Your task to perform on an android device: set default search engine in the chrome app Image 0: 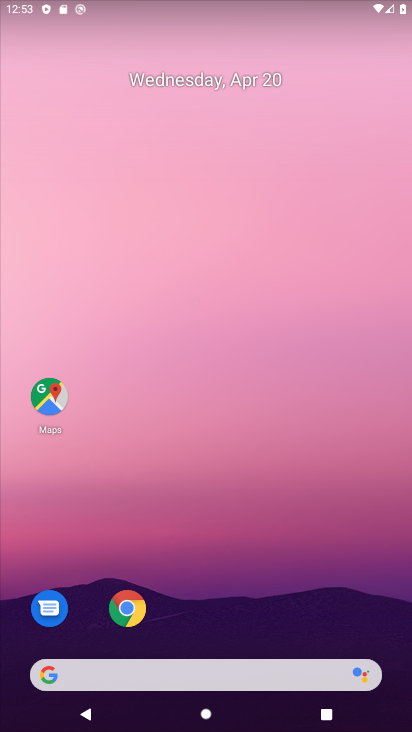
Step 0: click (124, 609)
Your task to perform on an android device: set default search engine in the chrome app Image 1: 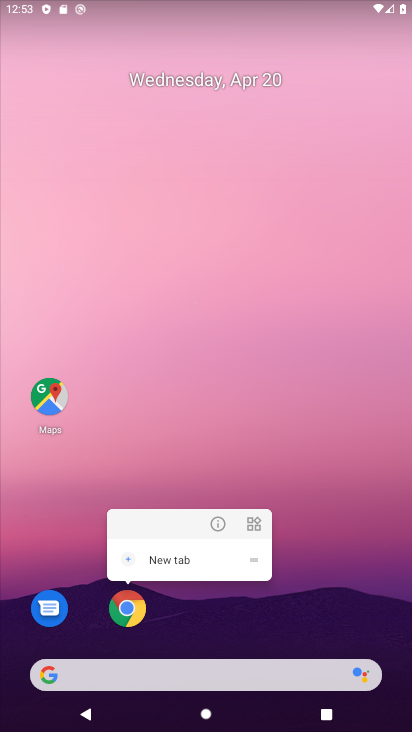
Step 1: drag from (374, 626) to (308, 45)
Your task to perform on an android device: set default search engine in the chrome app Image 2: 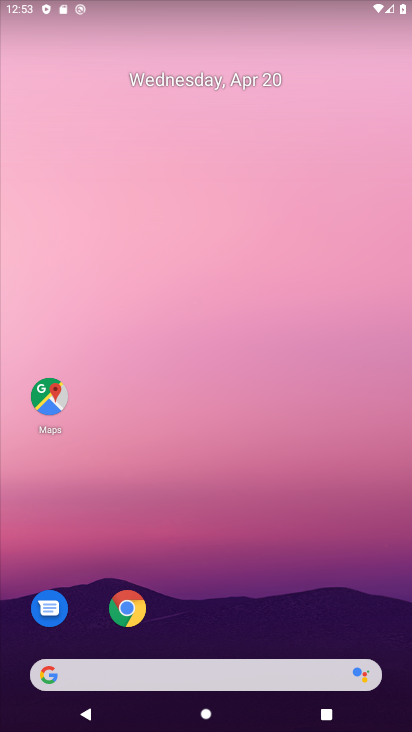
Step 2: drag from (273, 573) to (272, 88)
Your task to perform on an android device: set default search engine in the chrome app Image 3: 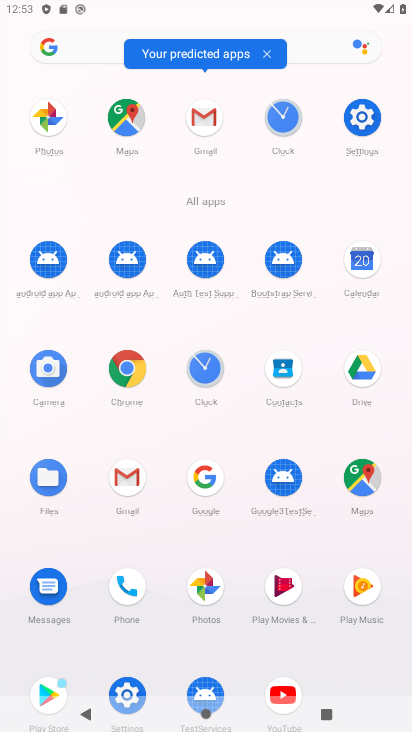
Step 3: click (134, 389)
Your task to perform on an android device: set default search engine in the chrome app Image 4: 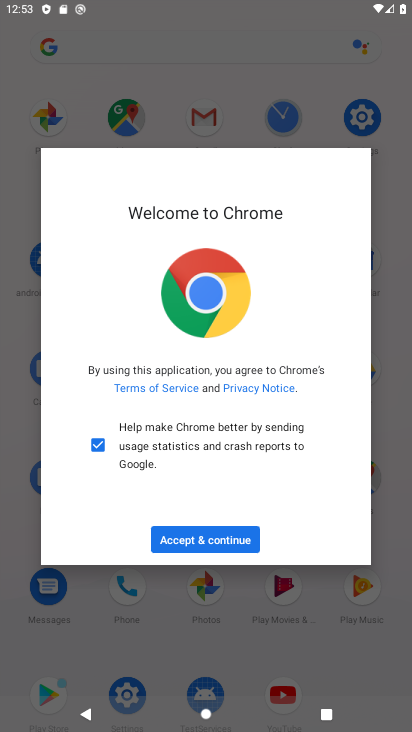
Step 4: click (215, 542)
Your task to perform on an android device: set default search engine in the chrome app Image 5: 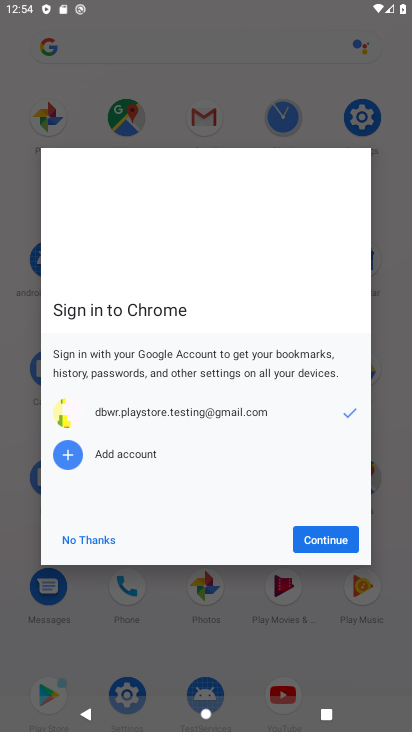
Step 5: click (307, 541)
Your task to perform on an android device: set default search engine in the chrome app Image 6: 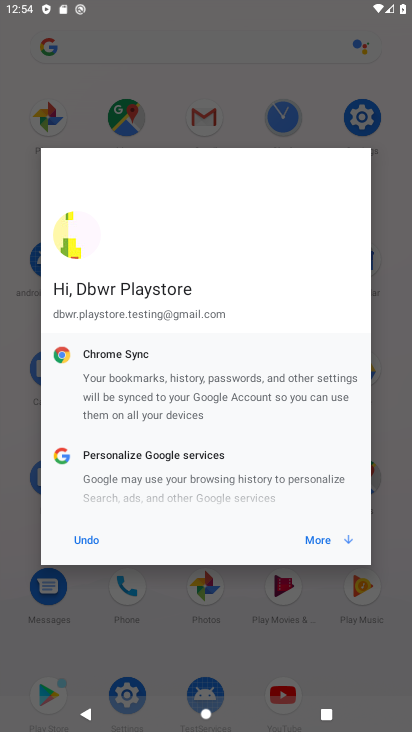
Step 6: click (307, 541)
Your task to perform on an android device: set default search engine in the chrome app Image 7: 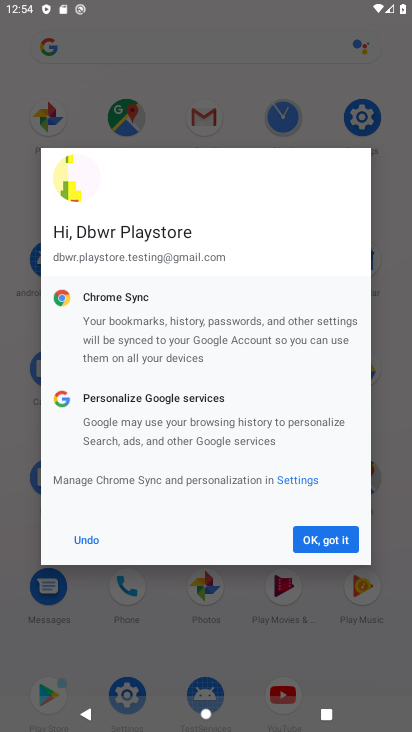
Step 7: click (307, 541)
Your task to perform on an android device: set default search engine in the chrome app Image 8: 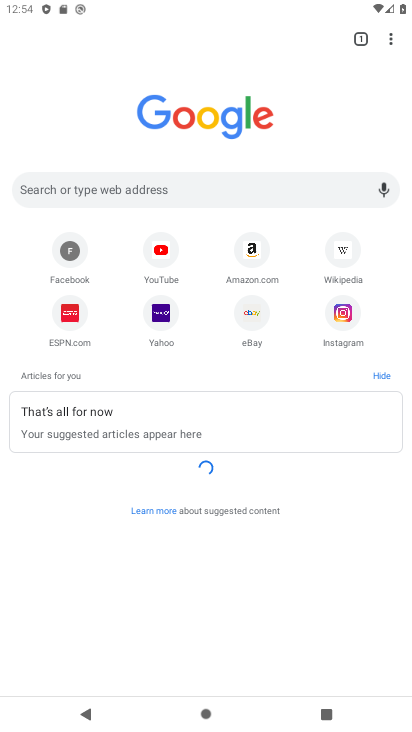
Step 8: click (390, 50)
Your task to perform on an android device: set default search engine in the chrome app Image 9: 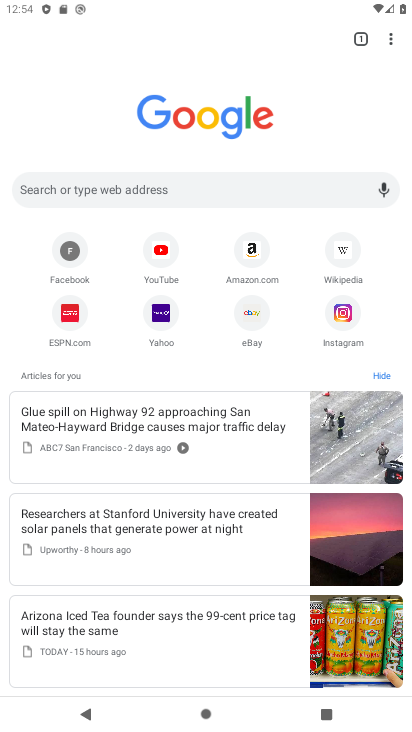
Step 9: drag from (390, 48) to (266, 325)
Your task to perform on an android device: set default search engine in the chrome app Image 10: 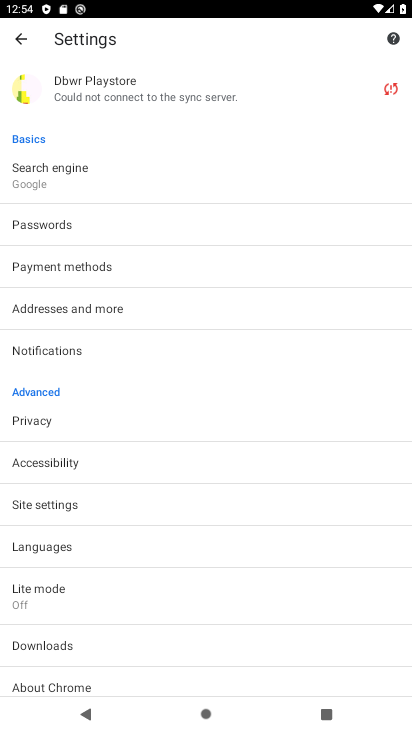
Step 10: drag from (242, 661) to (246, 601)
Your task to perform on an android device: set default search engine in the chrome app Image 11: 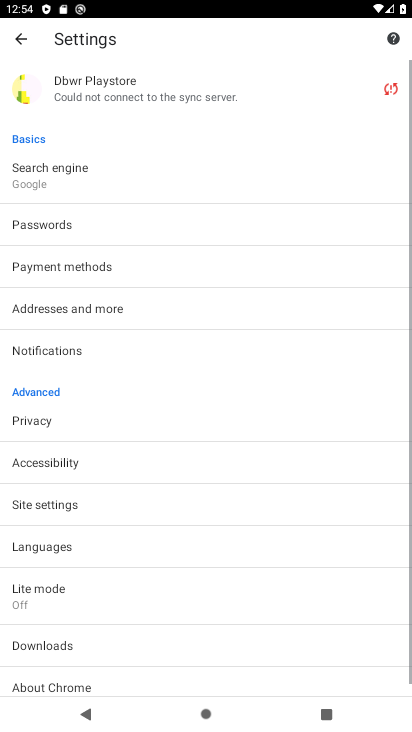
Step 11: click (206, 174)
Your task to perform on an android device: set default search engine in the chrome app Image 12: 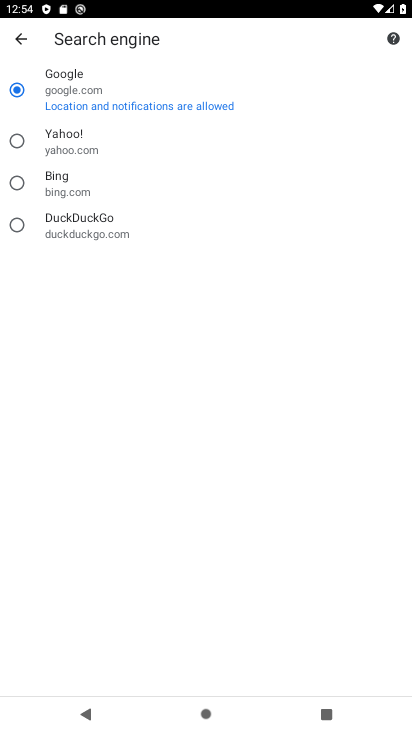
Step 12: click (206, 174)
Your task to perform on an android device: set default search engine in the chrome app Image 13: 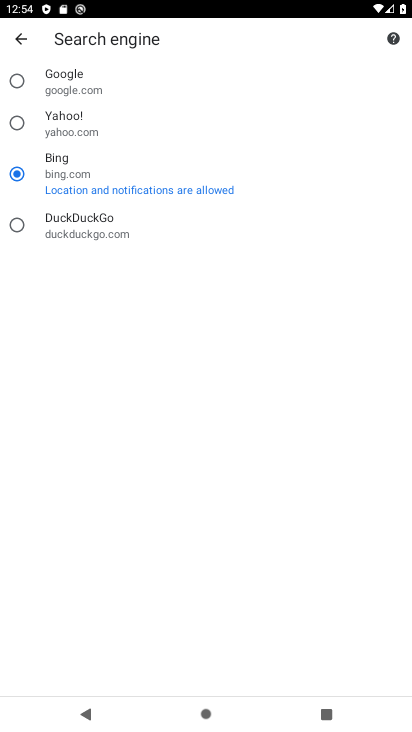
Step 13: task complete